Your task to perform on an android device: Open Google Chrome and click the shortcut for Amazon.com Image 0: 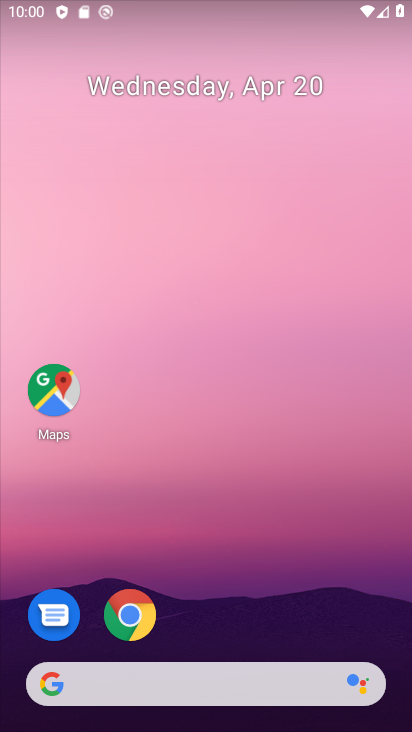
Step 0: click (136, 612)
Your task to perform on an android device: Open Google Chrome and click the shortcut for Amazon.com Image 1: 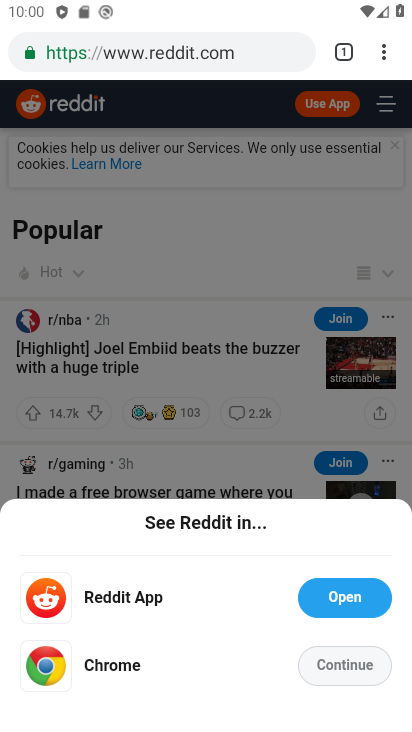
Step 1: click (347, 55)
Your task to perform on an android device: Open Google Chrome and click the shortcut for Amazon.com Image 2: 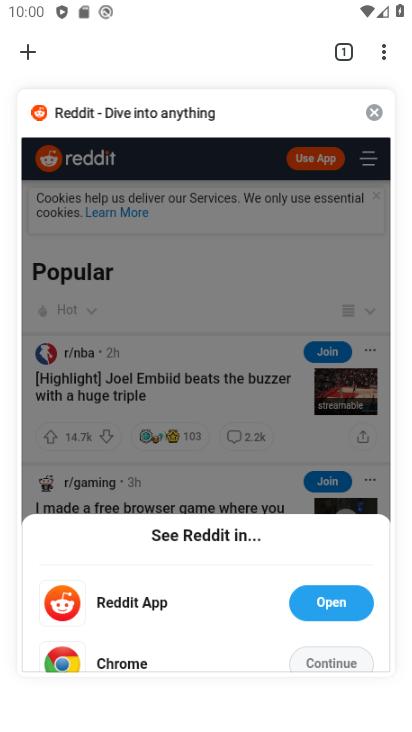
Step 2: click (25, 50)
Your task to perform on an android device: Open Google Chrome and click the shortcut for Amazon.com Image 3: 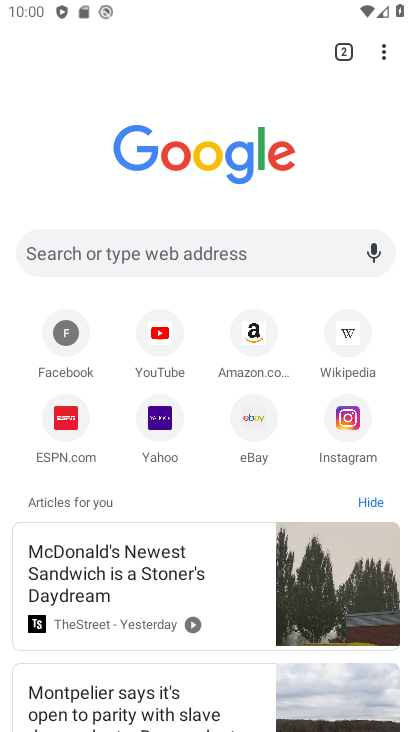
Step 3: click (259, 343)
Your task to perform on an android device: Open Google Chrome and click the shortcut for Amazon.com Image 4: 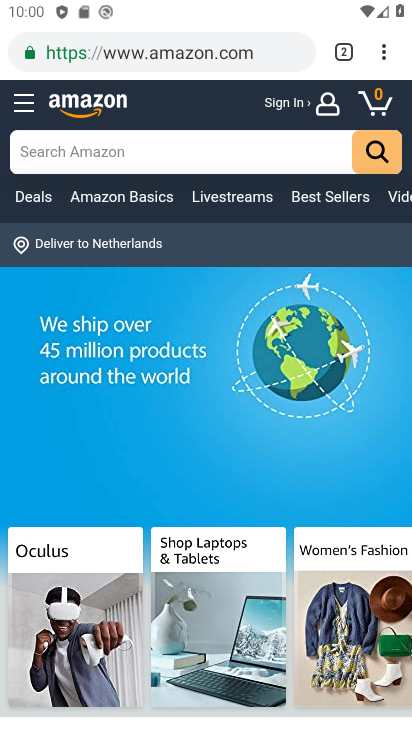
Step 4: task complete